Your task to perform on an android device: Check the news Image 0: 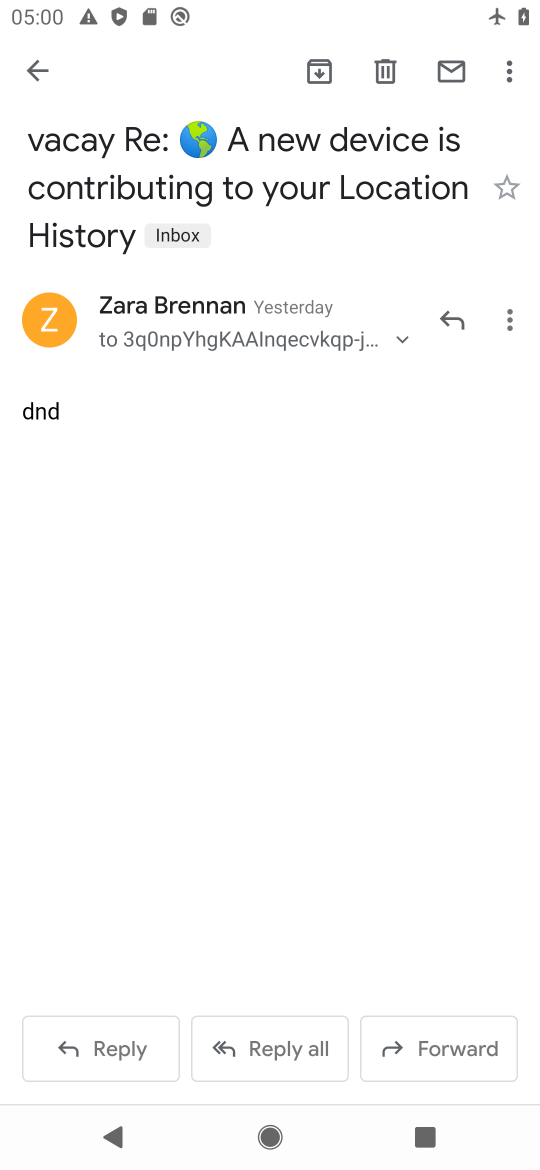
Step 0: press home button
Your task to perform on an android device: Check the news Image 1: 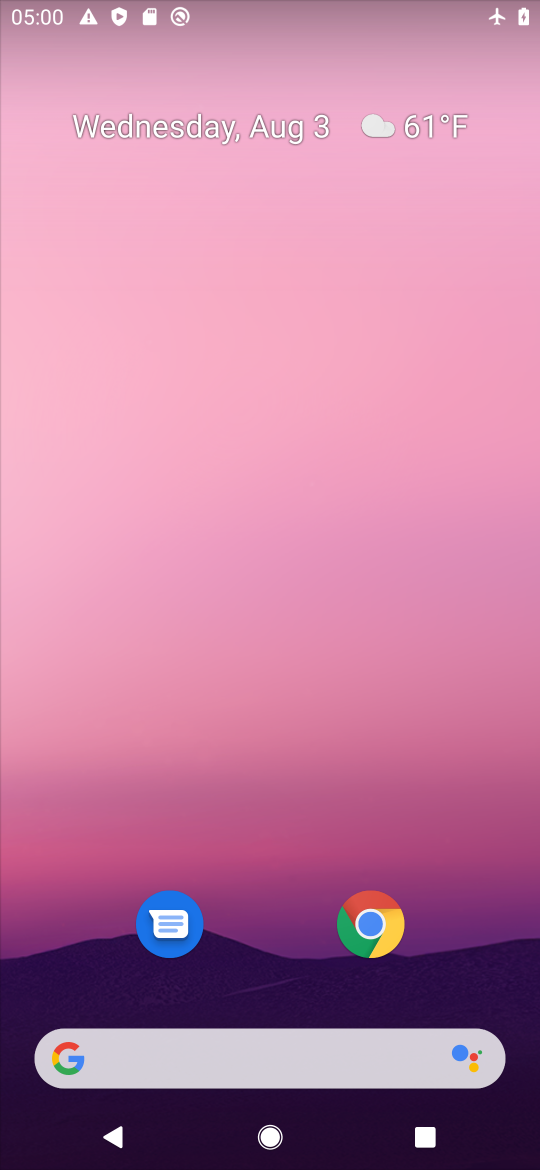
Step 1: drag from (287, 970) to (281, 242)
Your task to perform on an android device: Check the news Image 2: 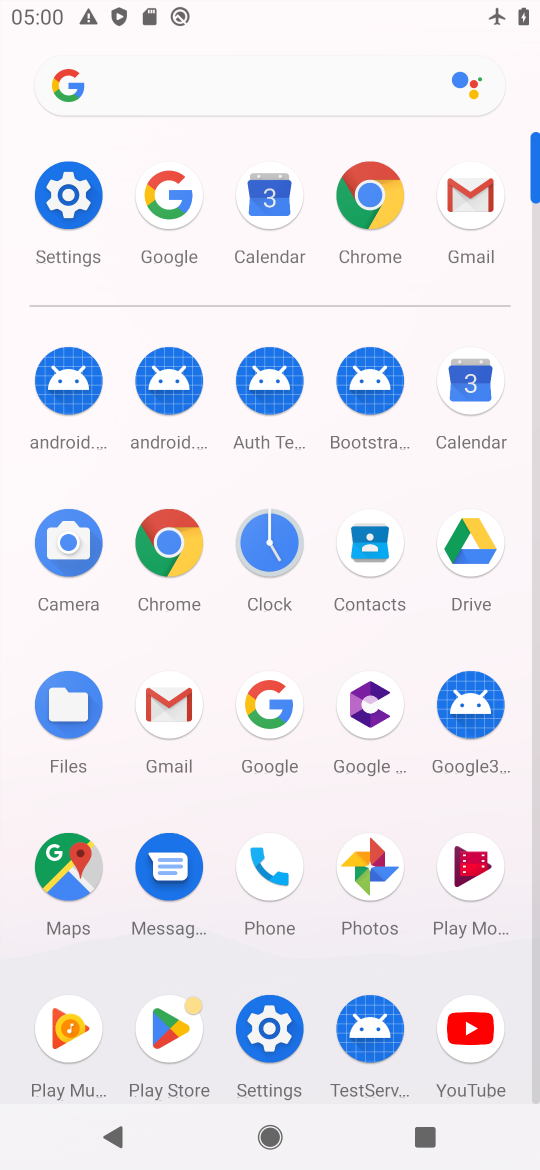
Step 2: click (257, 694)
Your task to perform on an android device: Check the news Image 3: 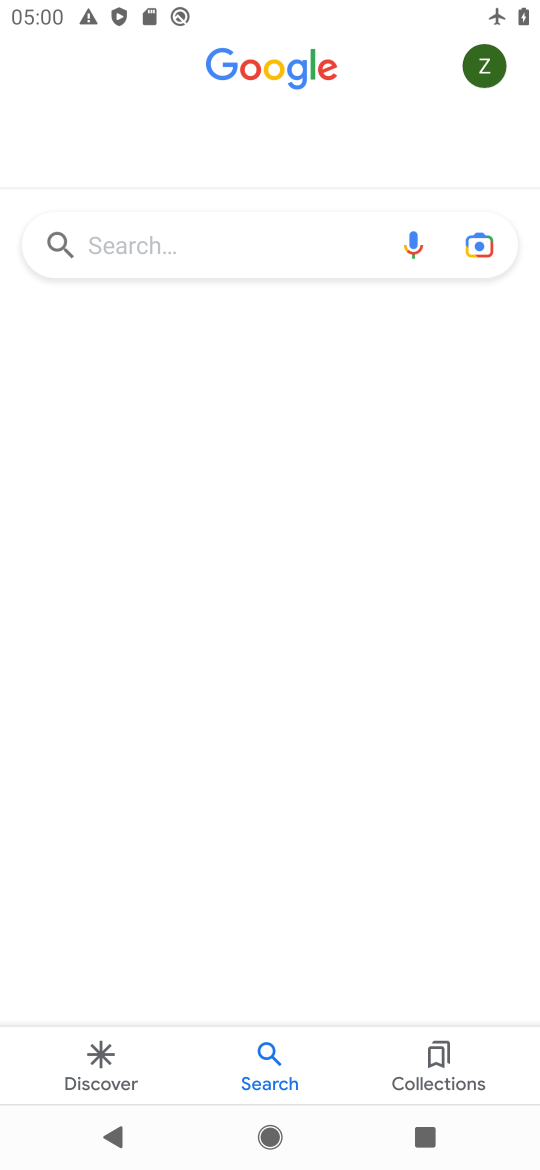
Step 3: click (213, 234)
Your task to perform on an android device: Check the news Image 4: 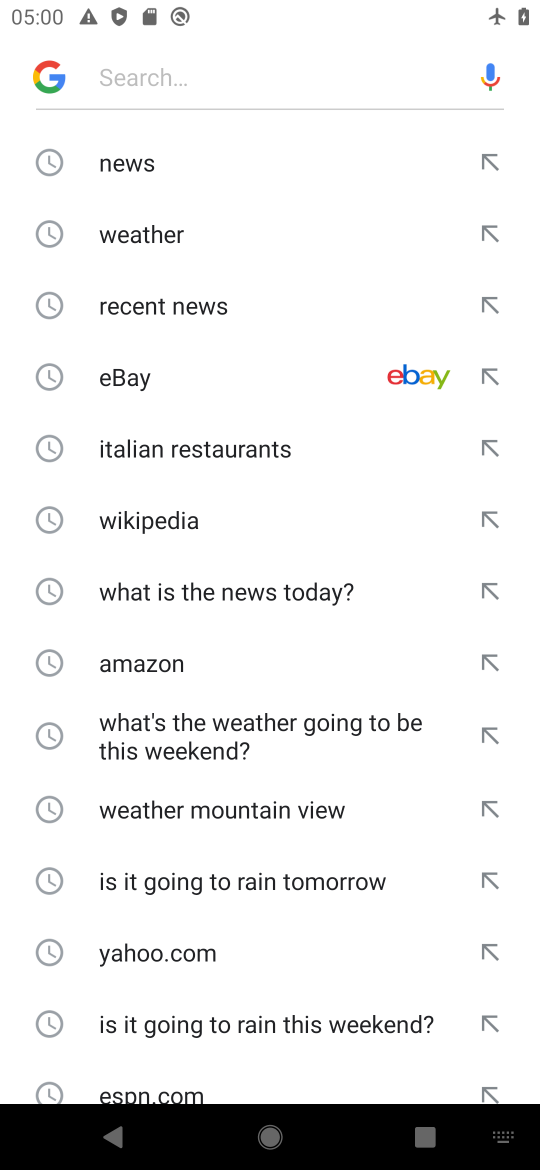
Step 4: click (165, 177)
Your task to perform on an android device: Check the news Image 5: 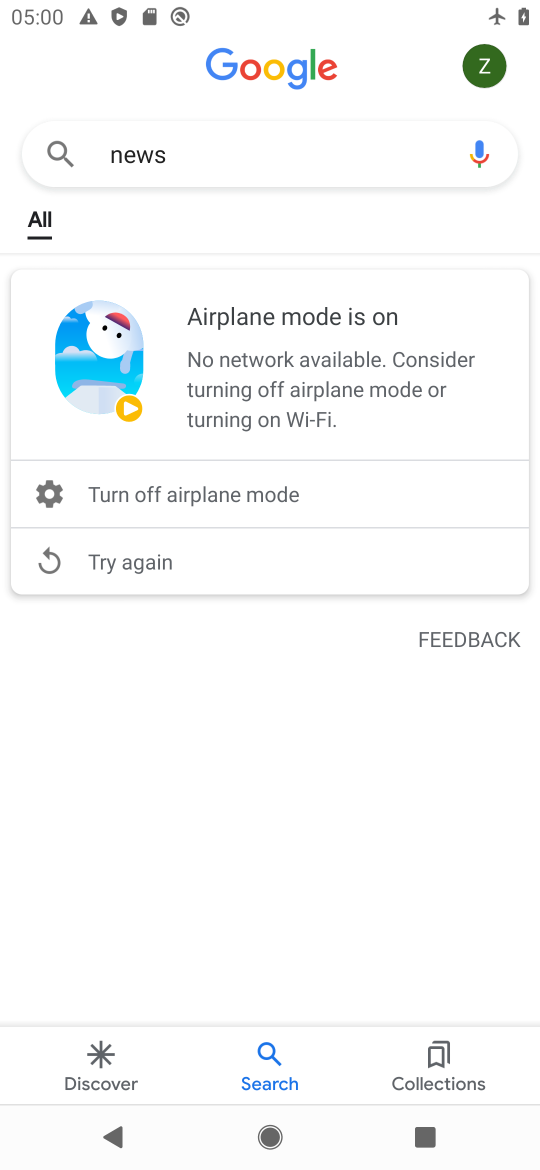
Step 5: task complete